Your task to perform on an android device: toggle notification dots Image 0: 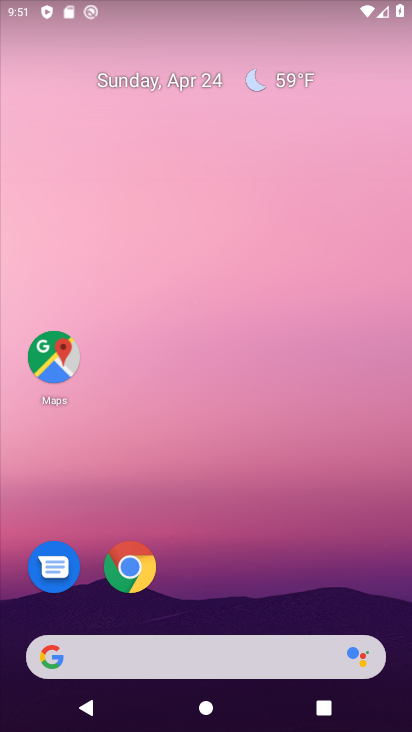
Step 0: click (367, 93)
Your task to perform on an android device: toggle notification dots Image 1: 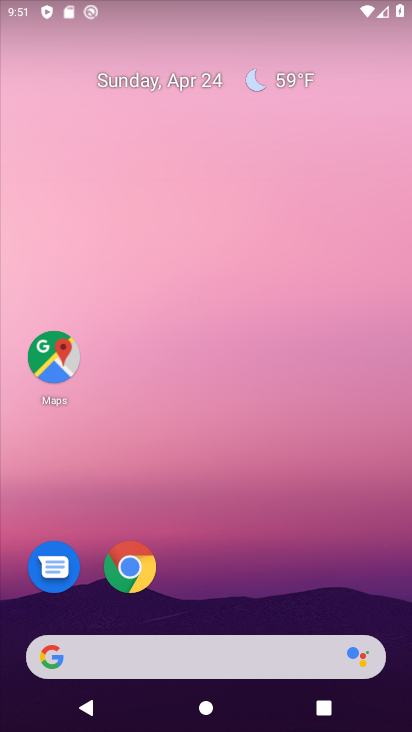
Step 1: drag from (367, 523) to (302, 235)
Your task to perform on an android device: toggle notification dots Image 2: 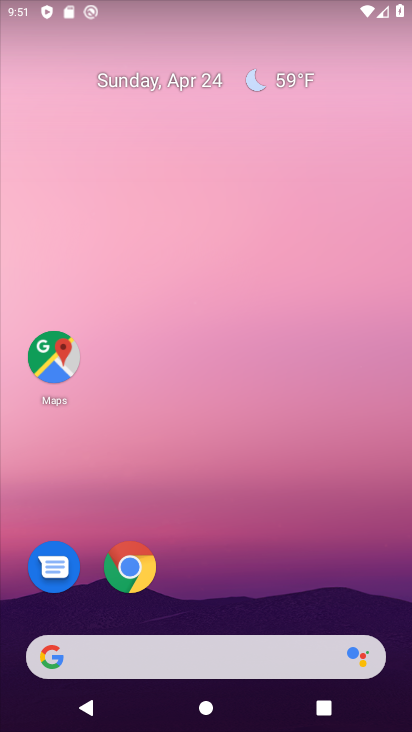
Step 2: drag from (384, 425) to (350, 60)
Your task to perform on an android device: toggle notification dots Image 3: 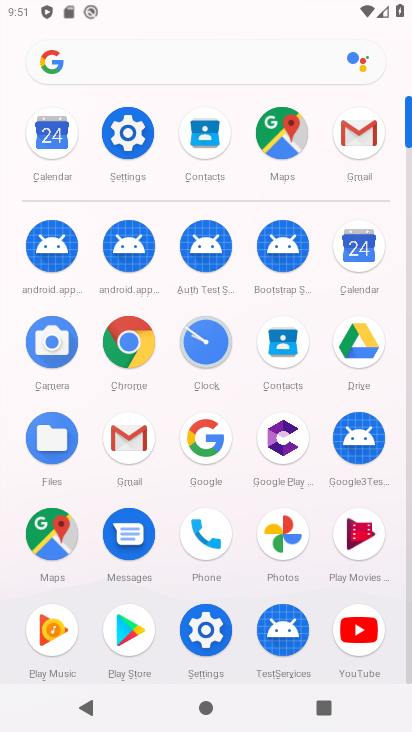
Step 3: click (124, 129)
Your task to perform on an android device: toggle notification dots Image 4: 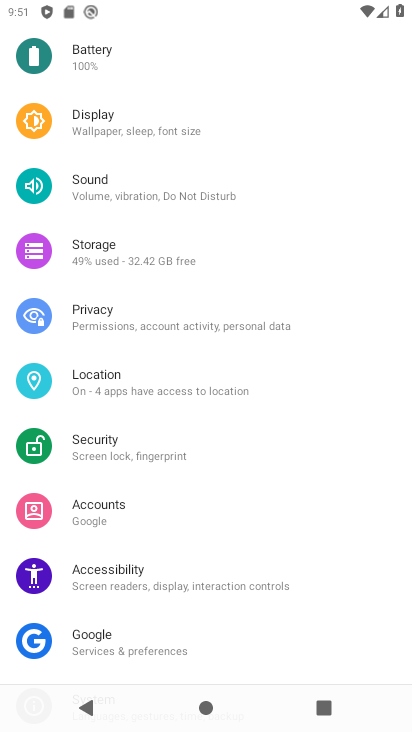
Step 4: click (101, 381)
Your task to perform on an android device: toggle notification dots Image 5: 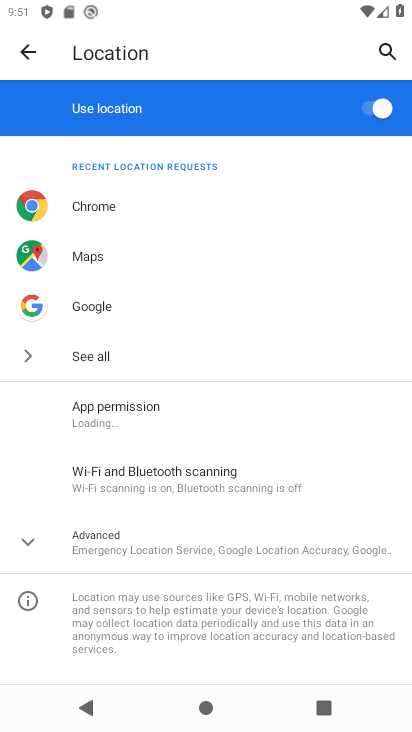
Step 5: press back button
Your task to perform on an android device: toggle notification dots Image 6: 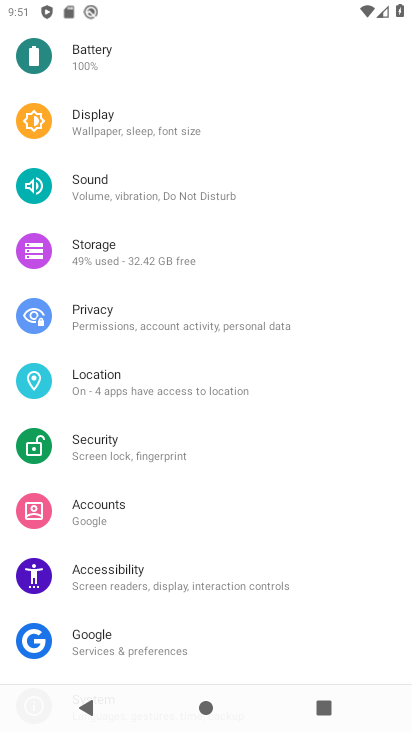
Step 6: drag from (321, 165) to (352, 572)
Your task to perform on an android device: toggle notification dots Image 7: 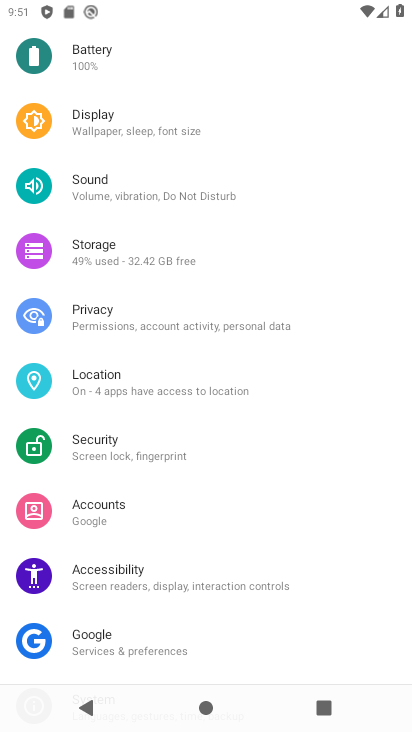
Step 7: click (328, 484)
Your task to perform on an android device: toggle notification dots Image 8: 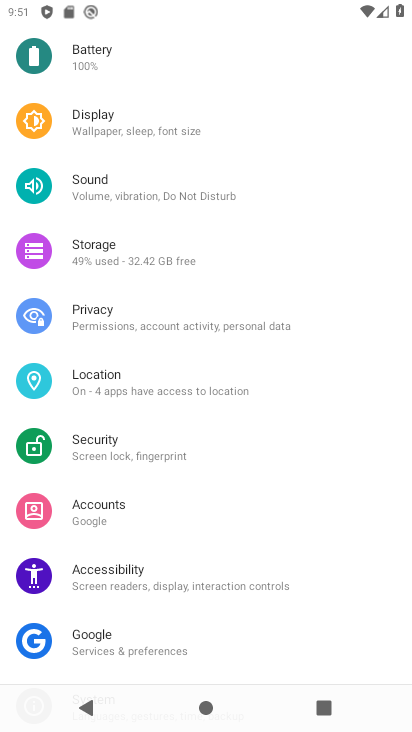
Step 8: drag from (310, 134) to (355, 619)
Your task to perform on an android device: toggle notification dots Image 9: 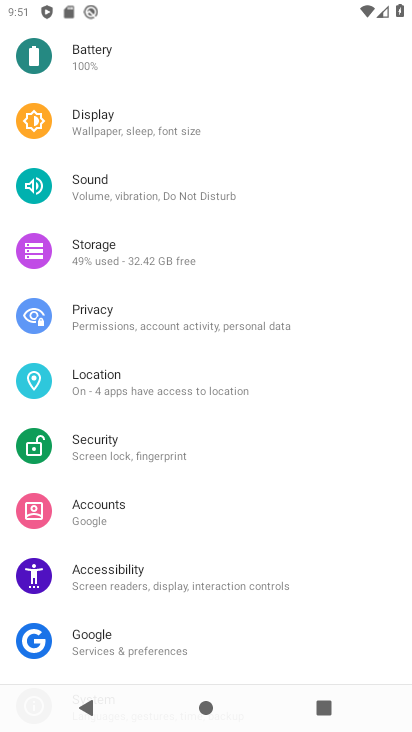
Step 9: drag from (363, 458) to (364, 535)
Your task to perform on an android device: toggle notification dots Image 10: 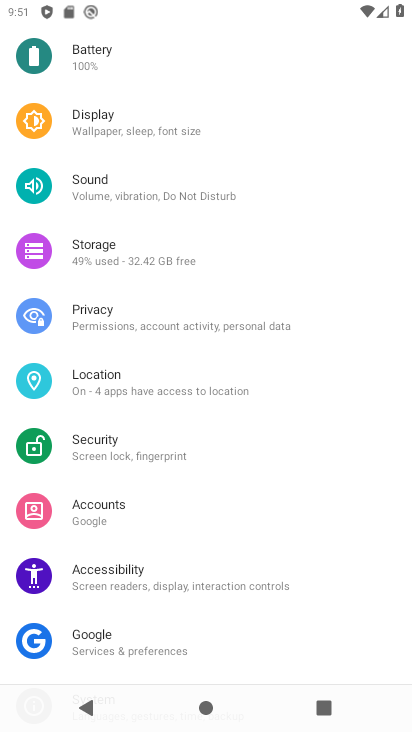
Step 10: drag from (350, 105) to (403, 434)
Your task to perform on an android device: toggle notification dots Image 11: 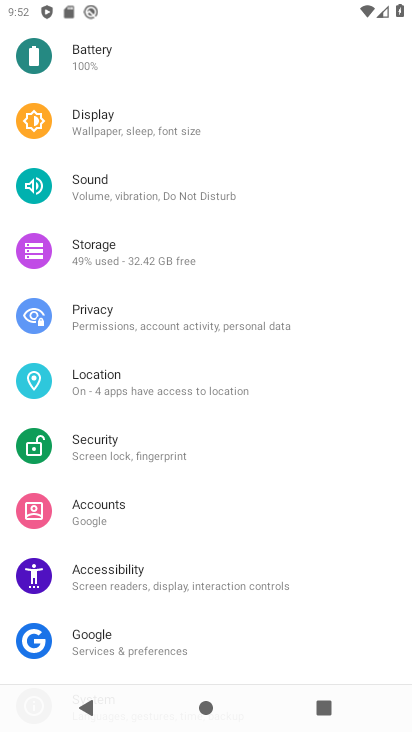
Step 11: drag from (345, 328) to (343, 608)
Your task to perform on an android device: toggle notification dots Image 12: 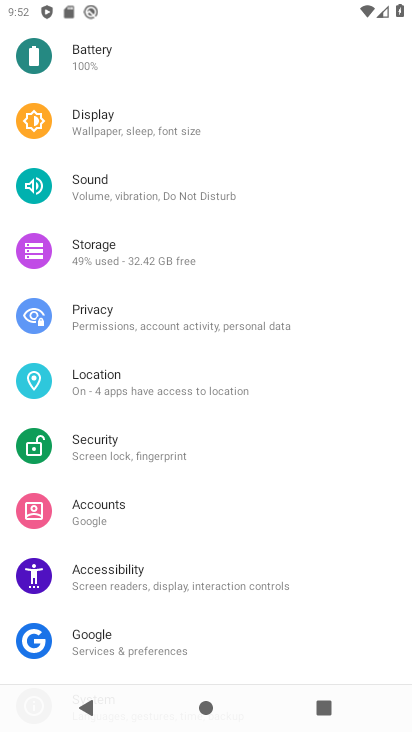
Step 12: drag from (345, 181) to (366, 681)
Your task to perform on an android device: toggle notification dots Image 13: 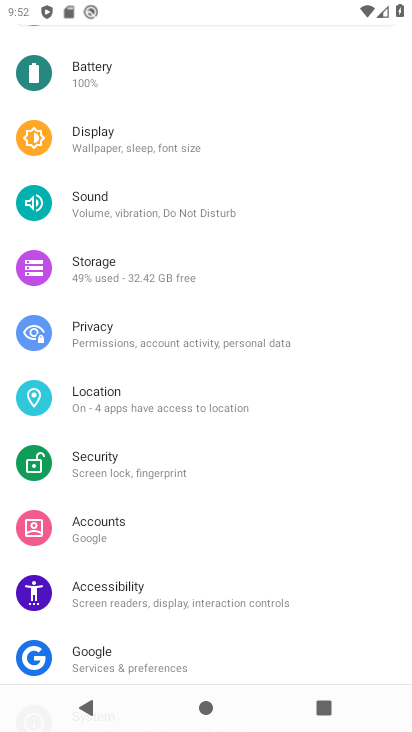
Step 13: drag from (335, 169) to (374, 574)
Your task to perform on an android device: toggle notification dots Image 14: 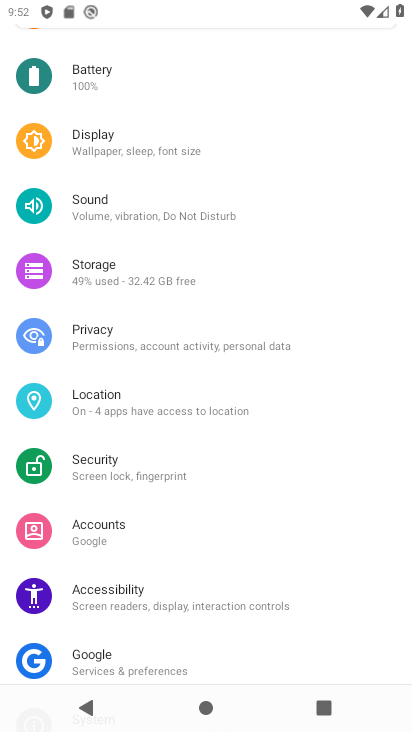
Step 14: drag from (355, 159) to (409, 638)
Your task to perform on an android device: toggle notification dots Image 15: 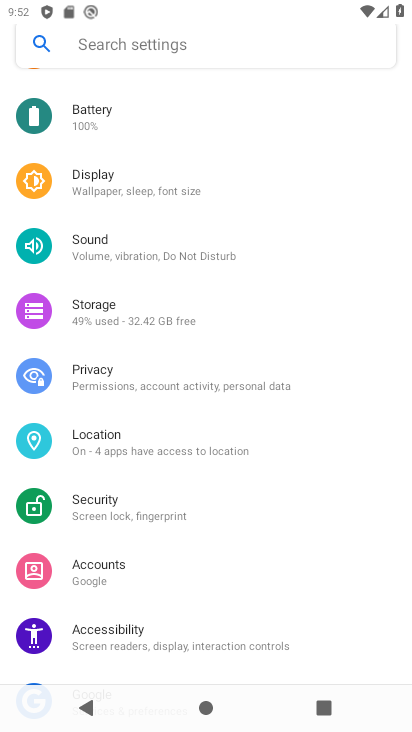
Step 15: drag from (343, 191) to (377, 608)
Your task to perform on an android device: toggle notification dots Image 16: 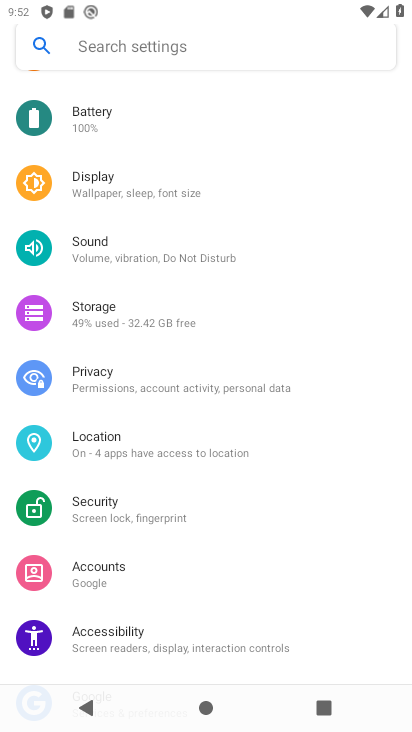
Step 16: drag from (334, 187) to (351, 528)
Your task to perform on an android device: toggle notification dots Image 17: 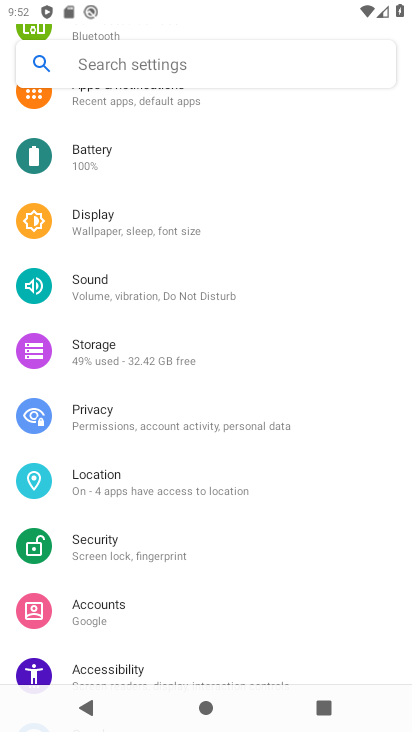
Step 17: click (309, 553)
Your task to perform on an android device: toggle notification dots Image 18: 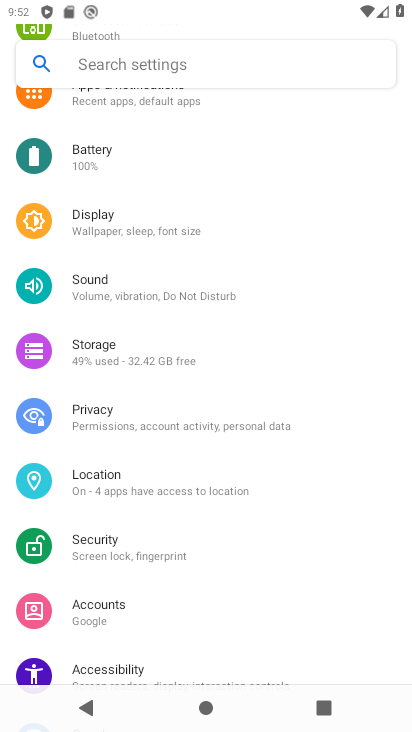
Step 18: drag from (352, 228) to (379, 559)
Your task to perform on an android device: toggle notification dots Image 19: 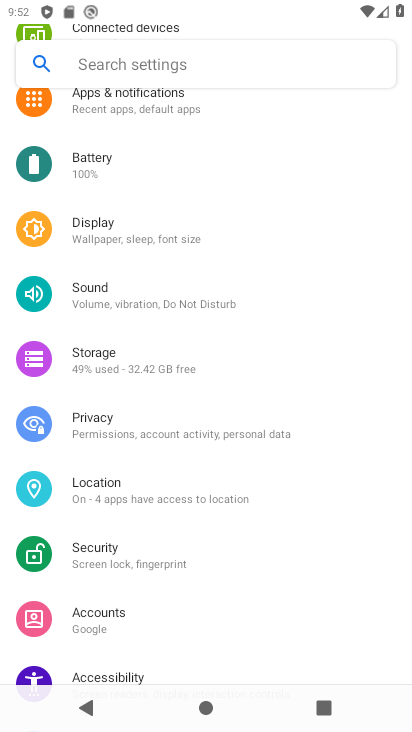
Step 19: click (127, 99)
Your task to perform on an android device: toggle notification dots Image 20: 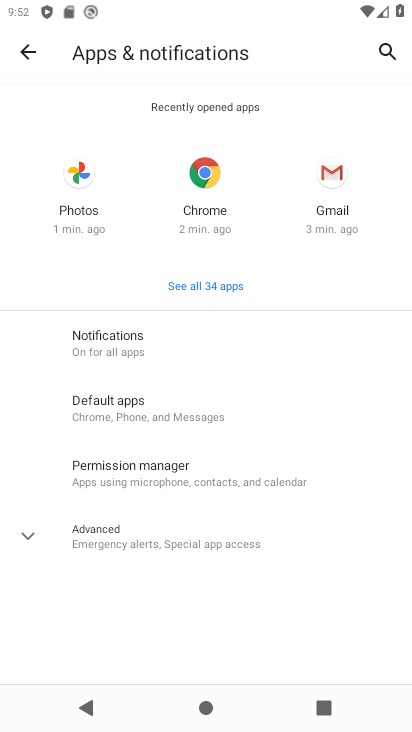
Step 20: click (103, 338)
Your task to perform on an android device: toggle notification dots Image 21: 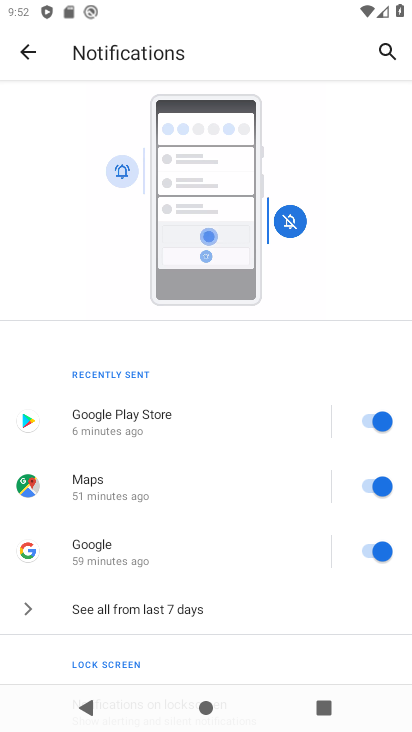
Step 21: drag from (292, 648) to (284, 194)
Your task to perform on an android device: toggle notification dots Image 22: 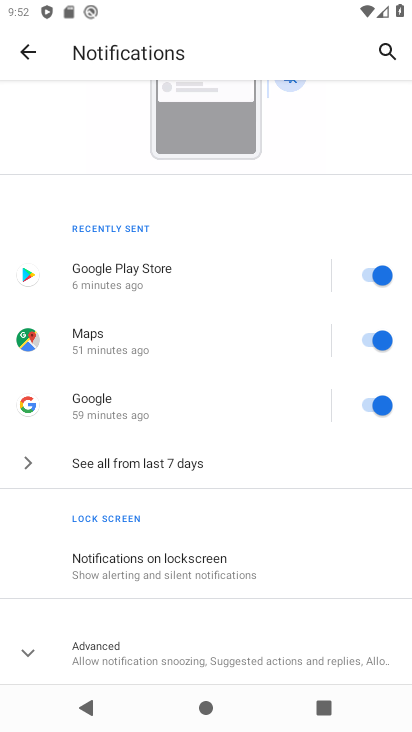
Step 22: click (257, 248)
Your task to perform on an android device: toggle notification dots Image 23: 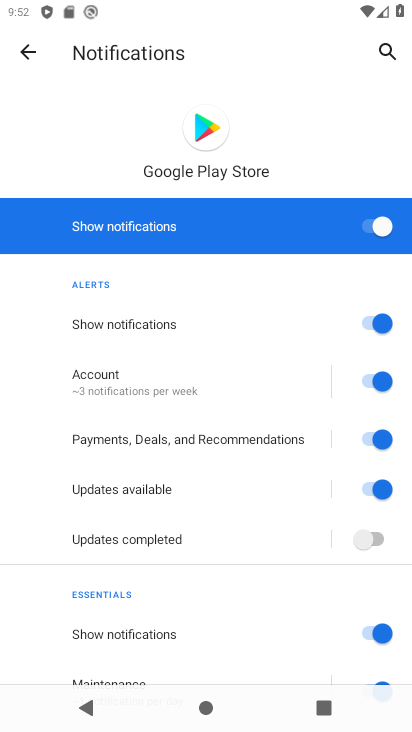
Step 23: click (20, 49)
Your task to perform on an android device: toggle notification dots Image 24: 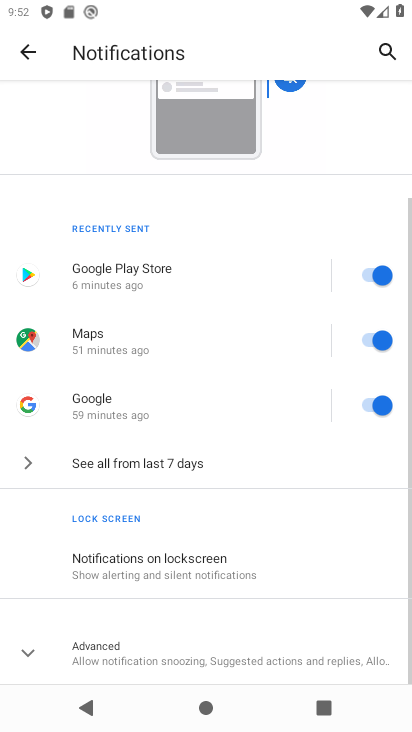
Step 24: drag from (267, 512) to (288, 107)
Your task to perform on an android device: toggle notification dots Image 25: 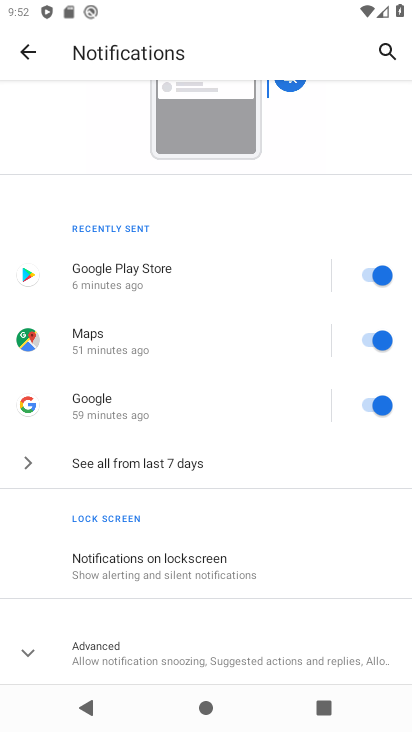
Step 25: click (31, 652)
Your task to perform on an android device: toggle notification dots Image 26: 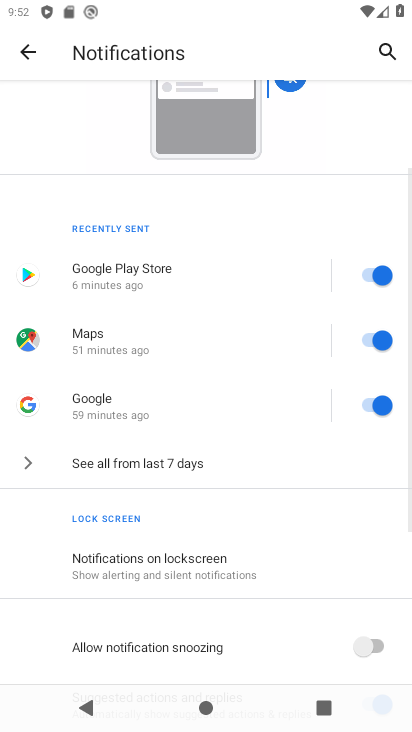
Step 26: drag from (263, 337) to (246, 226)
Your task to perform on an android device: toggle notification dots Image 27: 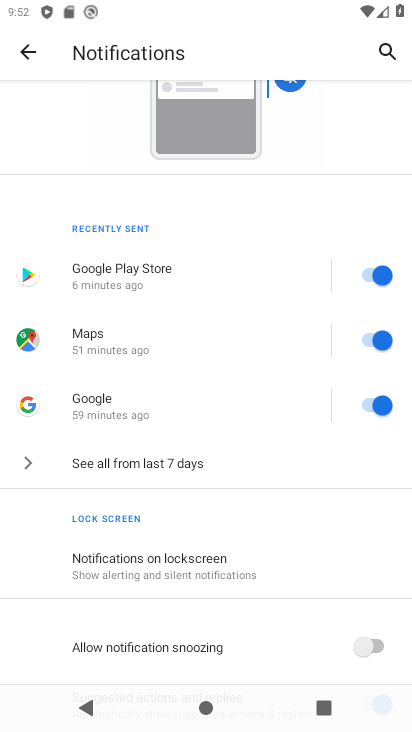
Step 27: drag from (274, 562) to (244, 290)
Your task to perform on an android device: toggle notification dots Image 28: 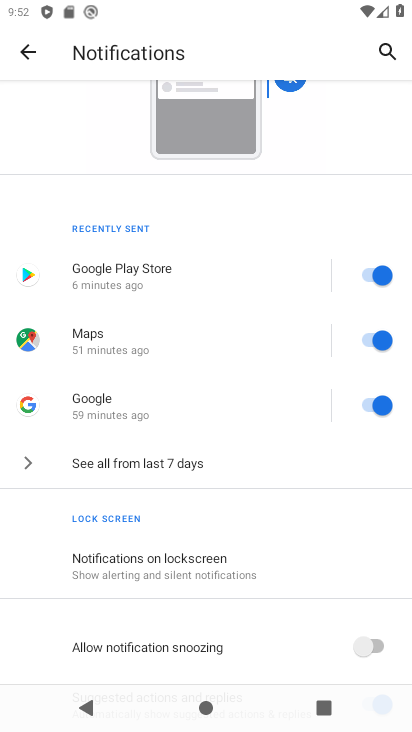
Step 28: drag from (287, 588) to (292, 326)
Your task to perform on an android device: toggle notification dots Image 29: 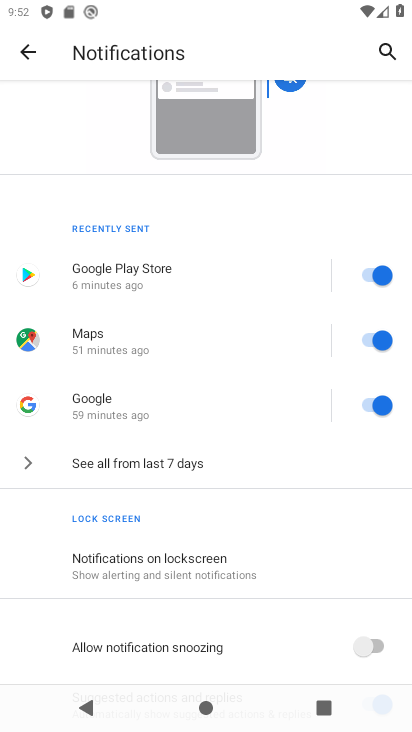
Step 29: drag from (293, 665) to (280, 358)
Your task to perform on an android device: toggle notification dots Image 30: 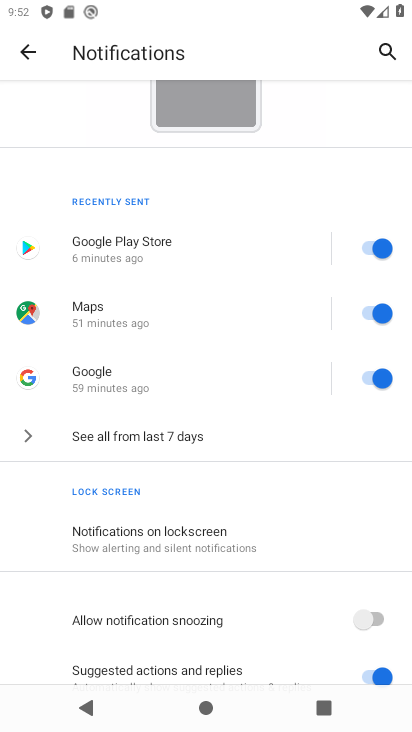
Step 30: drag from (286, 641) to (287, 244)
Your task to perform on an android device: toggle notification dots Image 31: 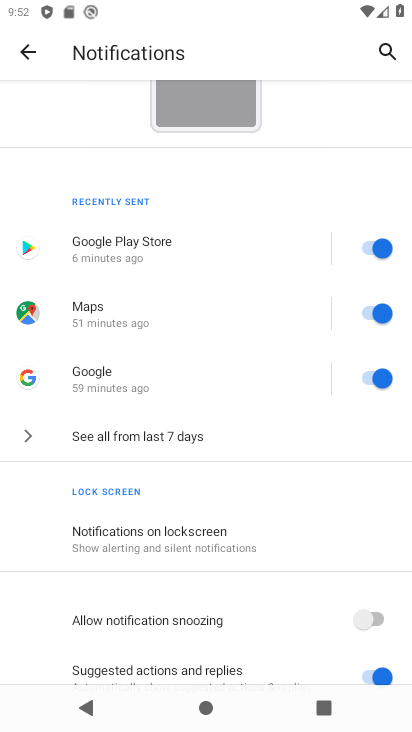
Step 31: drag from (250, 368) to (238, 316)
Your task to perform on an android device: toggle notification dots Image 32: 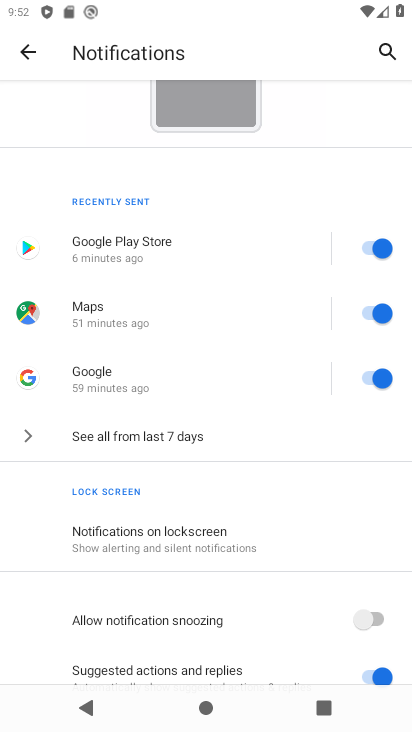
Step 32: drag from (294, 513) to (283, 252)
Your task to perform on an android device: toggle notification dots Image 33: 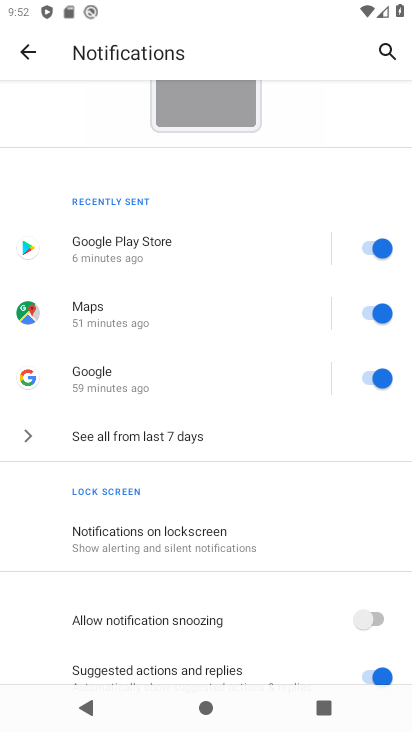
Step 33: drag from (343, 286) to (333, 230)
Your task to perform on an android device: toggle notification dots Image 34: 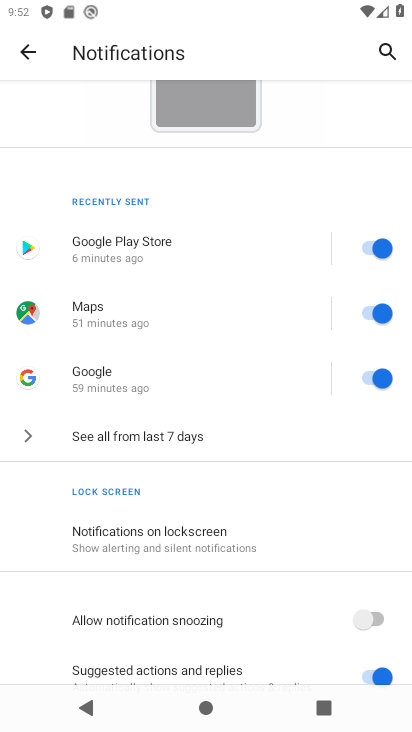
Step 34: drag from (288, 640) to (246, 224)
Your task to perform on an android device: toggle notification dots Image 35: 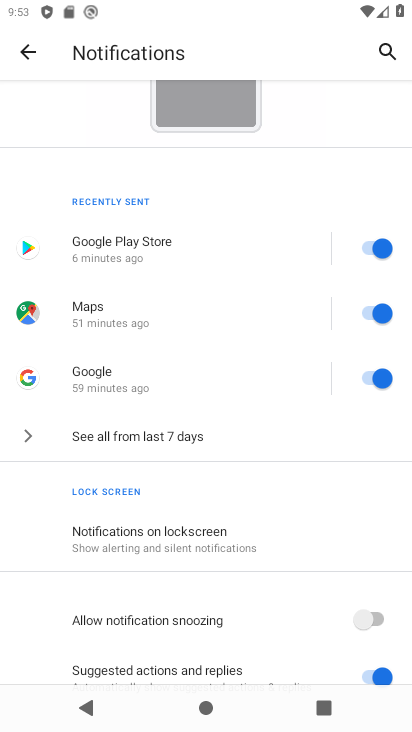
Step 35: drag from (297, 658) to (278, 326)
Your task to perform on an android device: toggle notification dots Image 36: 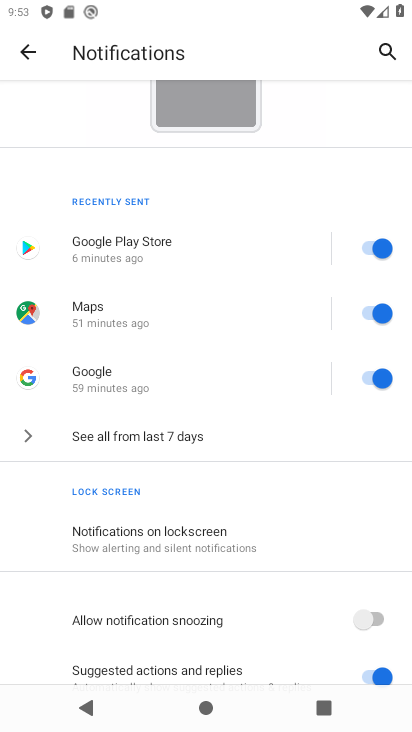
Step 36: drag from (293, 366) to (296, 255)
Your task to perform on an android device: toggle notification dots Image 37: 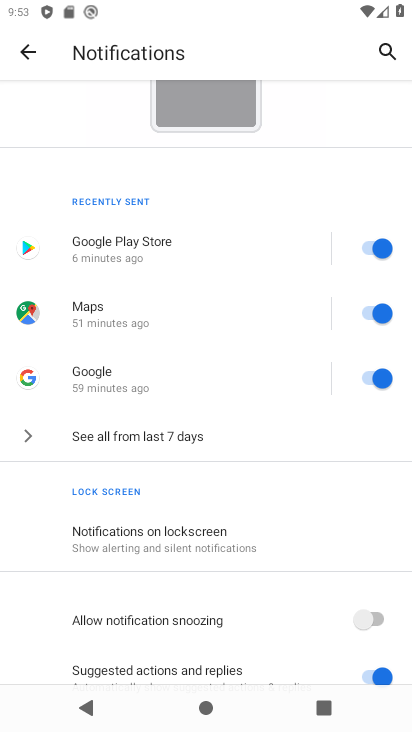
Step 37: drag from (290, 660) to (301, 149)
Your task to perform on an android device: toggle notification dots Image 38: 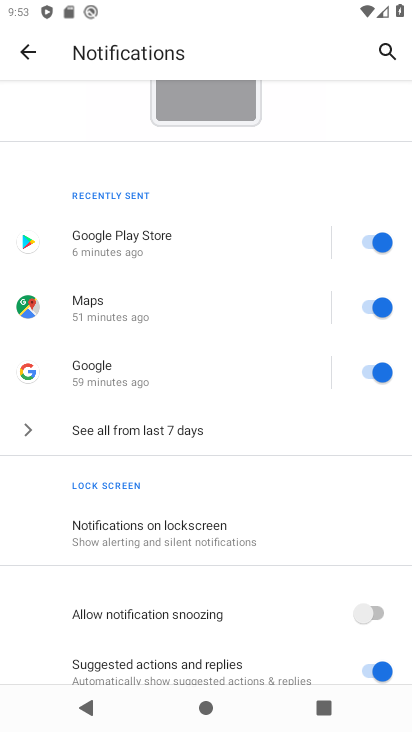
Step 38: drag from (294, 480) to (297, 298)
Your task to perform on an android device: toggle notification dots Image 39: 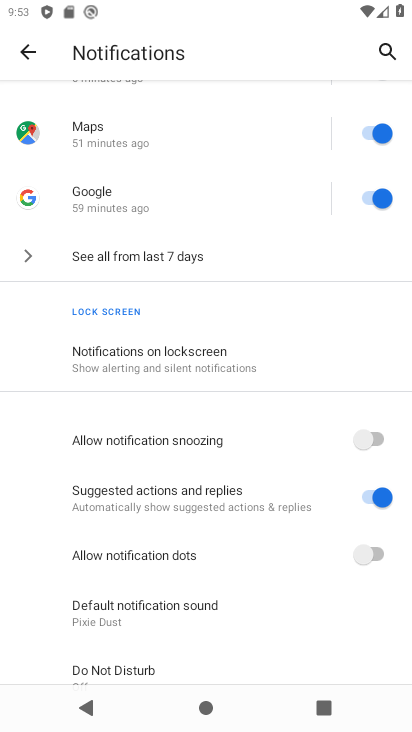
Step 39: click (379, 552)
Your task to perform on an android device: toggle notification dots Image 40: 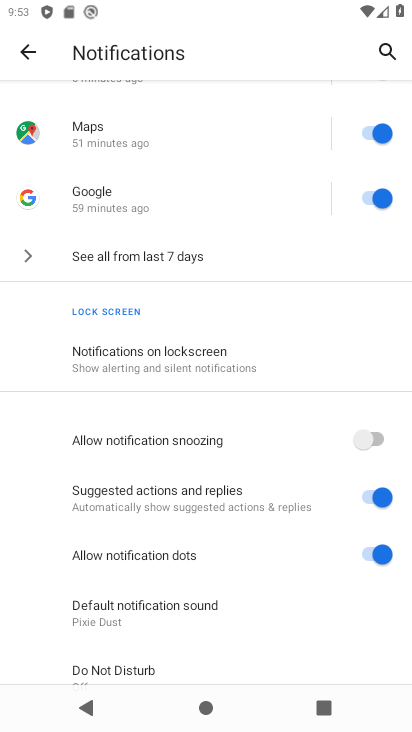
Step 40: task complete